Your task to perform on an android device: Open Reddit.com Image 0: 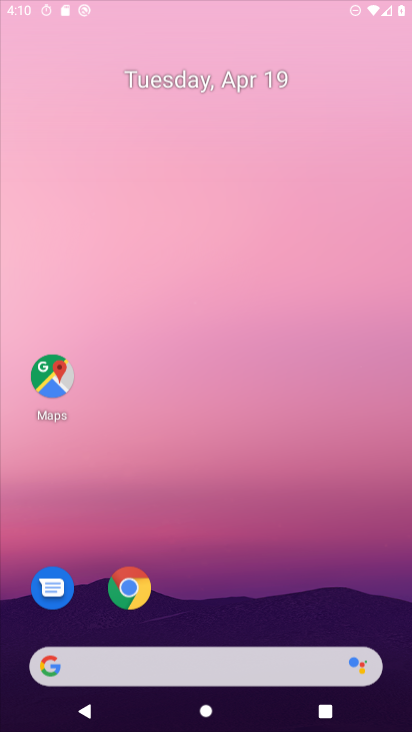
Step 0: drag from (210, 572) to (273, 90)
Your task to perform on an android device: Open Reddit.com Image 1: 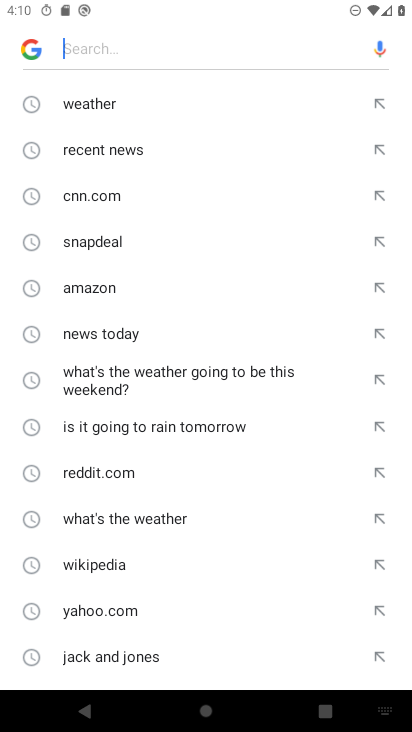
Step 1: press home button
Your task to perform on an android device: Open Reddit.com Image 2: 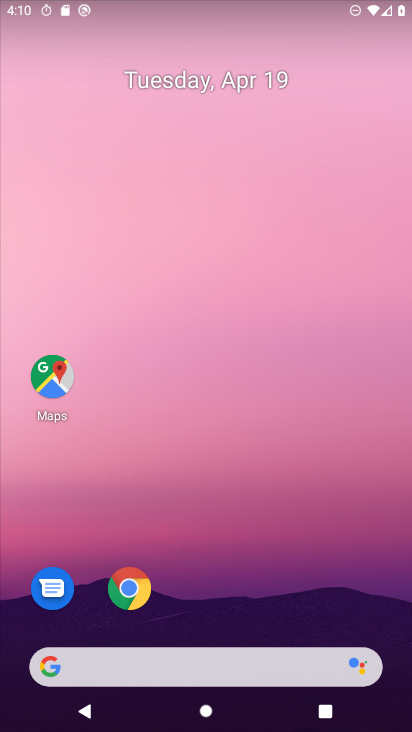
Step 2: click (195, 666)
Your task to perform on an android device: Open Reddit.com Image 3: 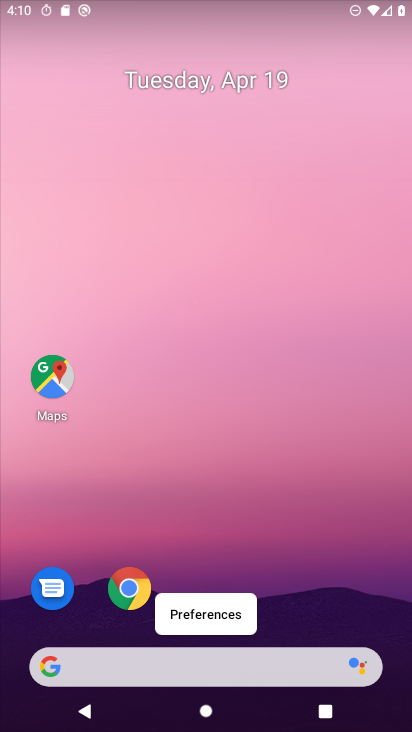
Step 3: click (185, 666)
Your task to perform on an android device: Open Reddit.com Image 4: 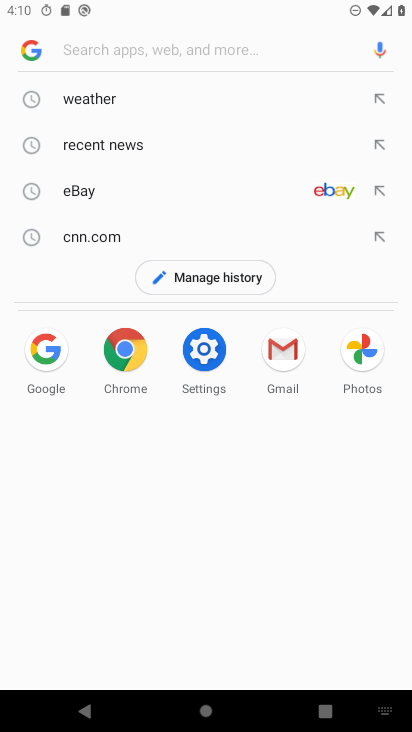
Step 4: click (171, 44)
Your task to perform on an android device: Open Reddit.com Image 5: 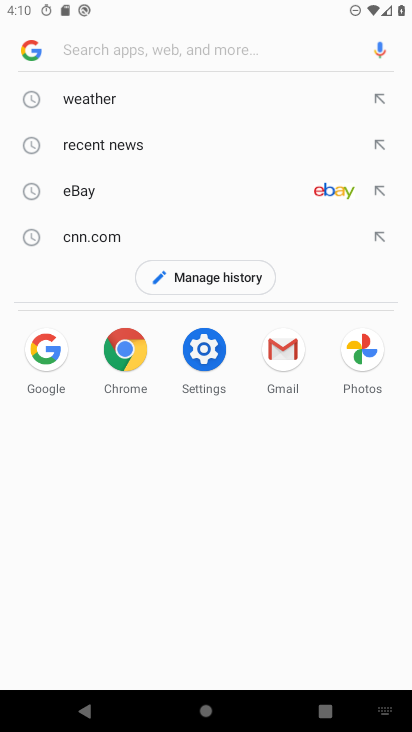
Step 5: type "Reddit.com"
Your task to perform on an android device: Open Reddit.com Image 6: 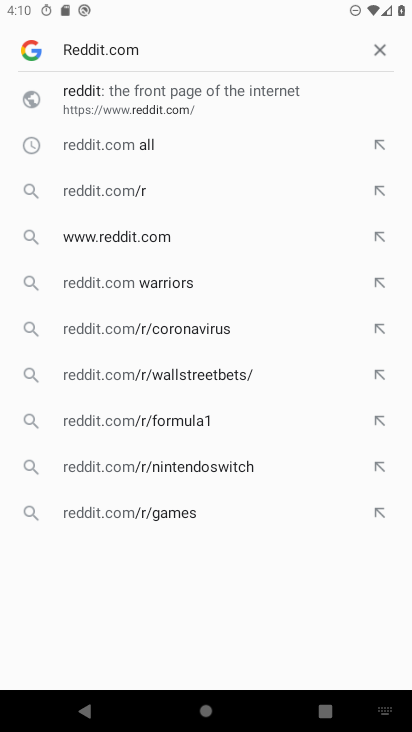
Step 6: click (111, 228)
Your task to perform on an android device: Open Reddit.com Image 7: 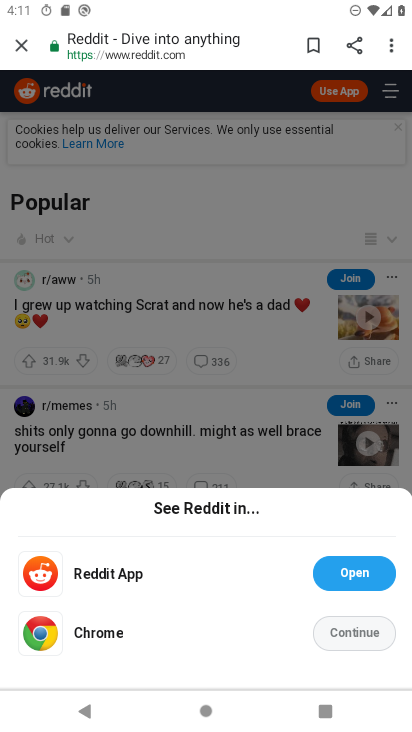
Step 7: task complete